Your task to perform on an android device: Go to Amazon Image 0: 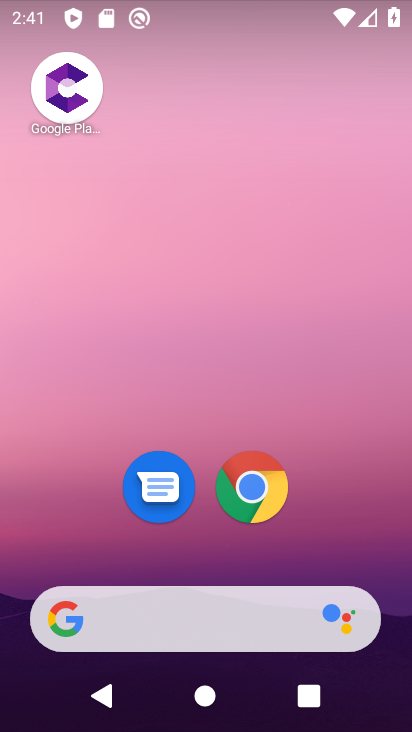
Step 0: drag from (330, 514) to (295, 45)
Your task to perform on an android device: Go to Amazon Image 1: 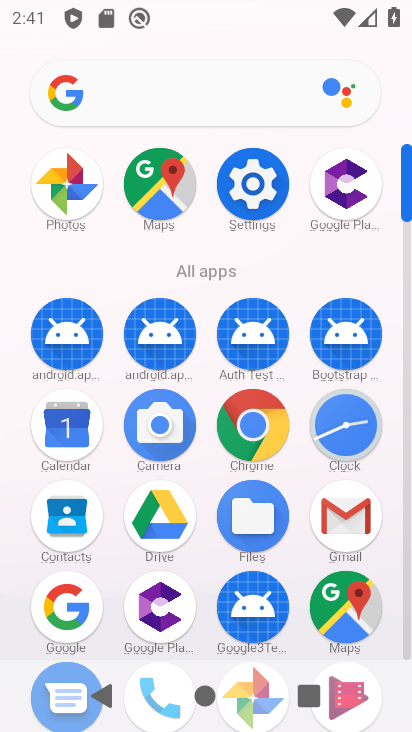
Step 1: click (257, 417)
Your task to perform on an android device: Go to Amazon Image 2: 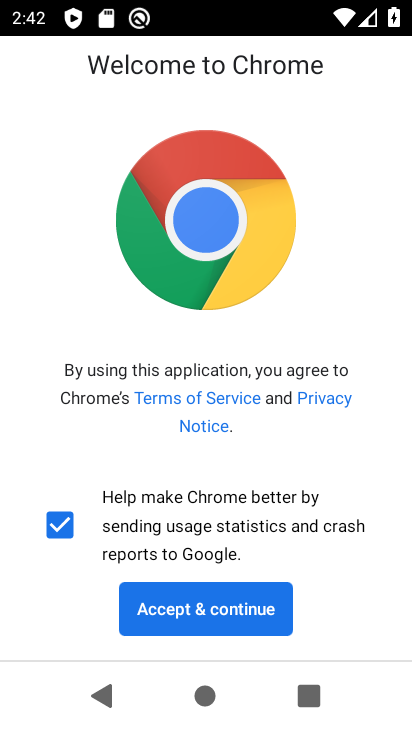
Step 2: click (262, 598)
Your task to perform on an android device: Go to Amazon Image 3: 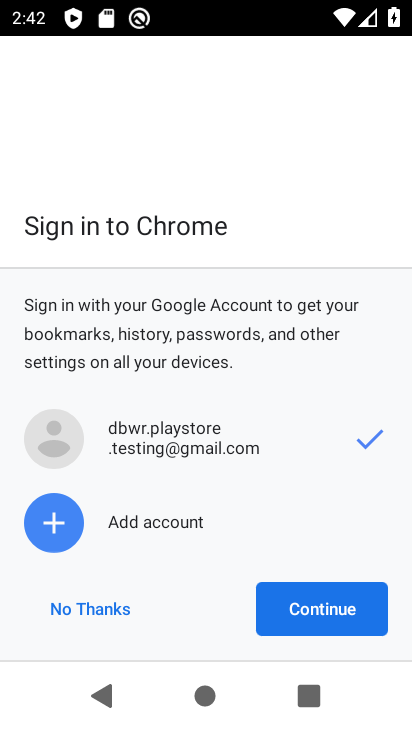
Step 3: click (315, 612)
Your task to perform on an android device: Go to Amazon Image 4: 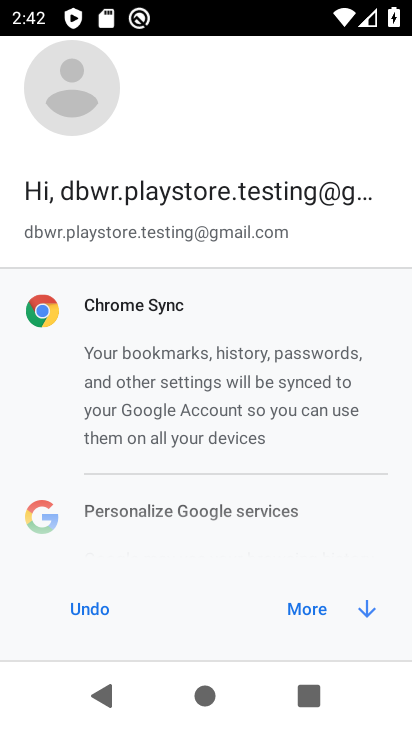
Step 4: click (315, 610)
Your task to perform on an android device: Go to Amazon Image 5: 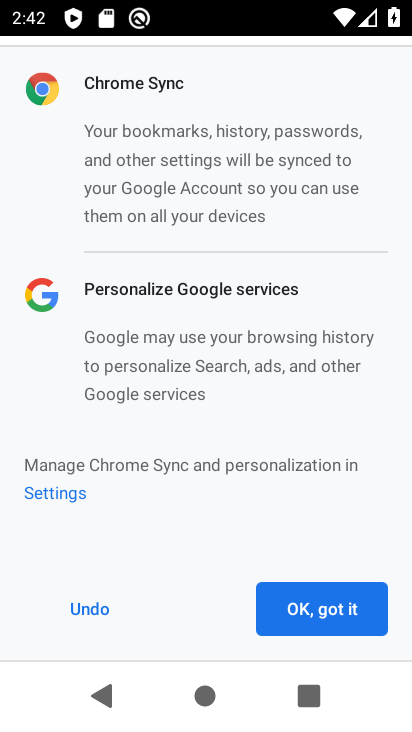
Step 5: click (315, 610)
Your task to perform on an android device: Go to Amazon Image 6: 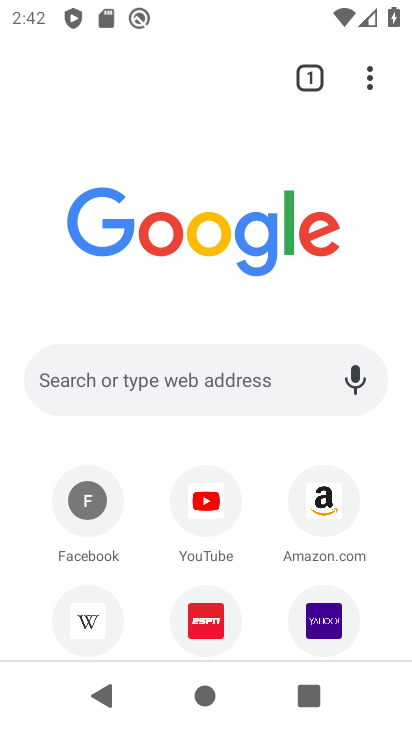
Step 6: click (333, 488)
Your task to perform on an android device: Go to Amazon Image 7: 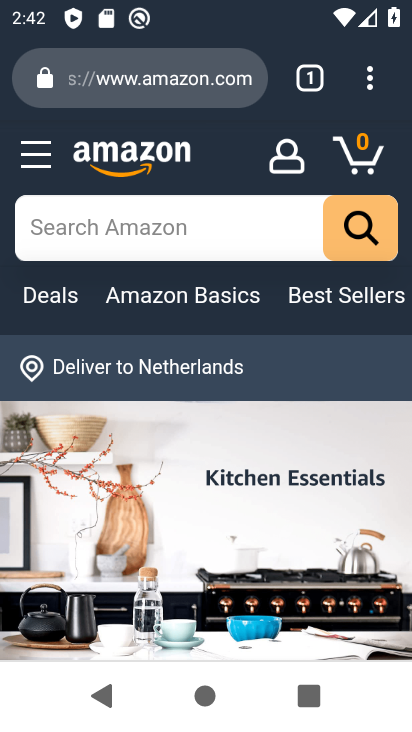
Step 7: task complete